Your task to perform on an android device: Search for Italian restaurants on Maps Image 0: 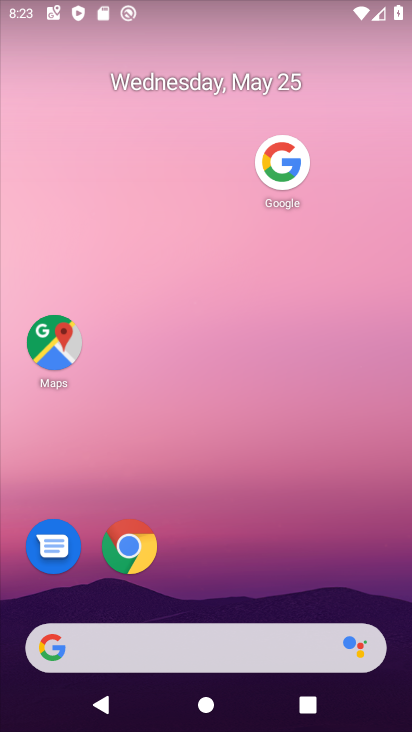
Step 0: click (63, 349)
Your task to perform on an android device: Search for Italian restaurants on Maps Image 1: 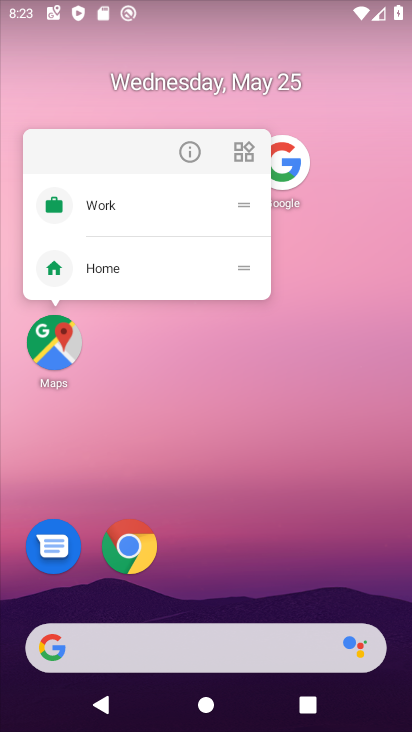
Step 1: click (54, 355)
Your task to perform on an android device: Search for Italian restaurants on Maps Image 2: 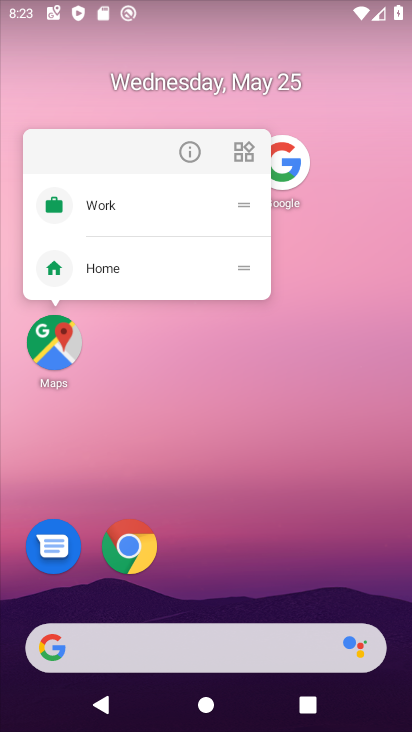
Step 2: click (62, 337)
Your task to perform on an android device: Search for Italian restaurants on Maps Image 3: 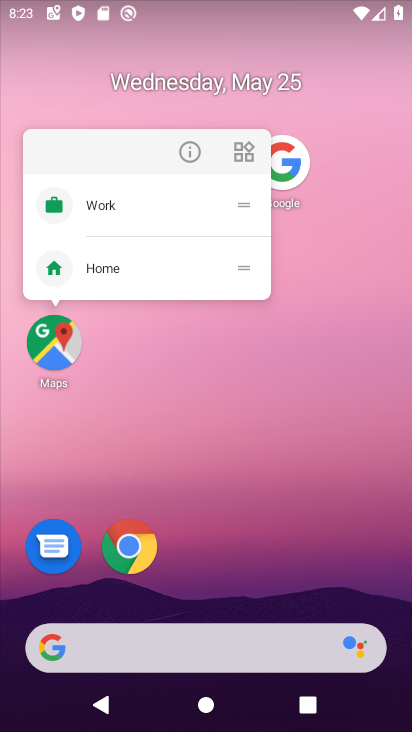
Step 3: click (48, 352)
Your task to perform on an android device: Search for Italian restaurants on Maps Image 4: 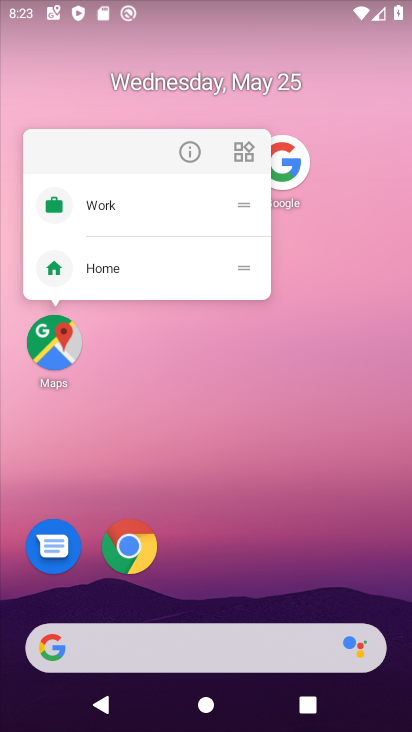
Step 4: click (57, 350)
Your task to perform on an android device: Search for Italian restaurants on Maps Image 5: 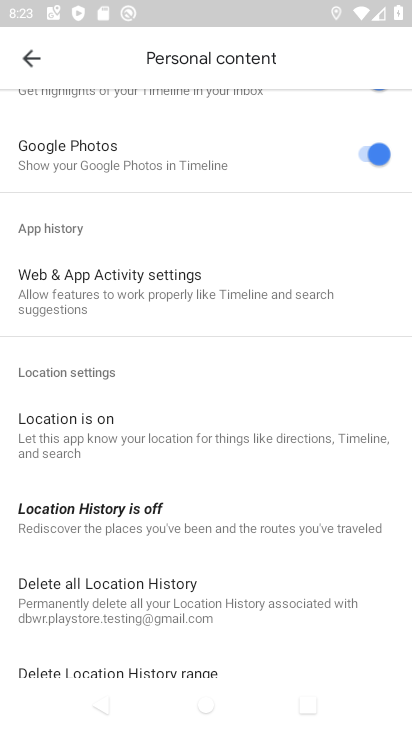
Step 5: click (36, 58)
Your task to perform on an android device: Search for Italian restaurants on Maps Image 6: 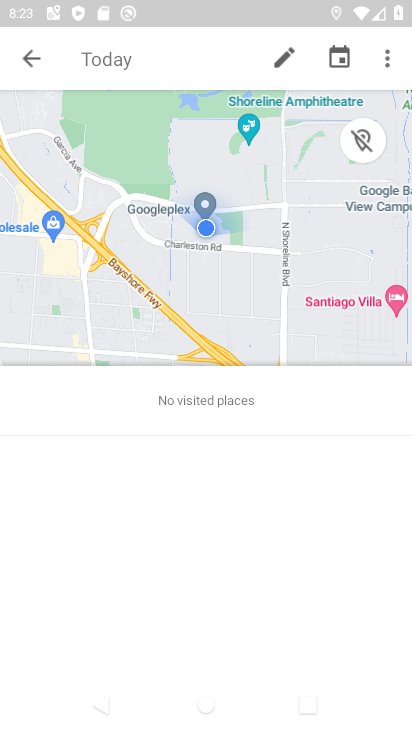
Step 6: click (34, 58)
Your task to perform on an android device: Search for Italian restaurants on Maps Image 7: 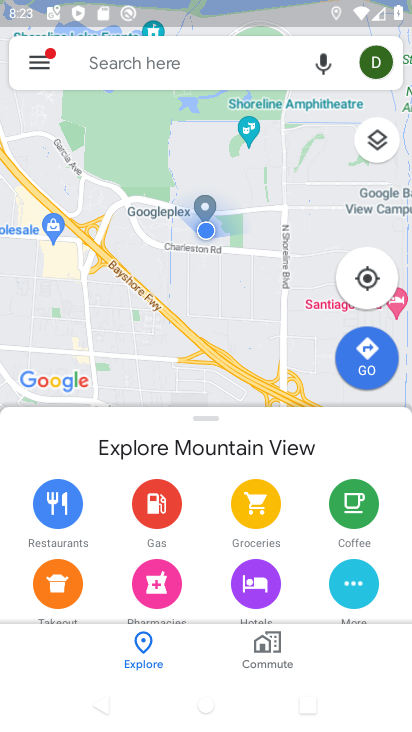
Step 7: click (157, 63)
Your task to perform on an android device: Search for Italian restaurants on Maps Image 8: 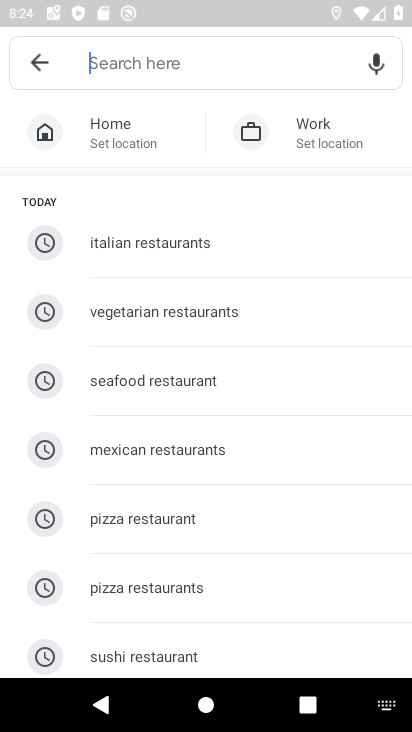
Step 8: click (159, 240)
Your task to perform on an android device: Search for Italian restaurants on Maps Image 9: 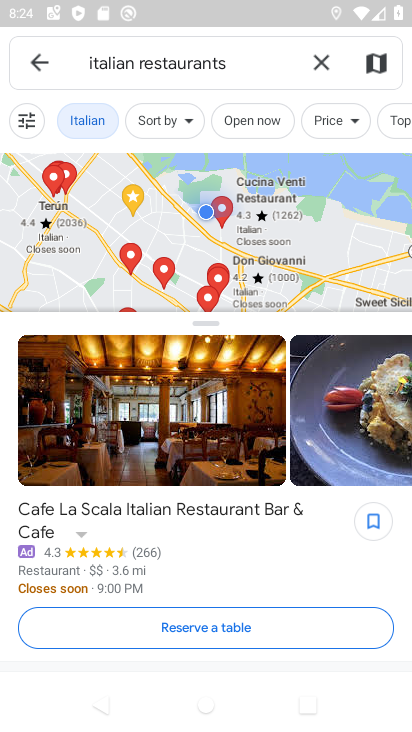
Step 9: task complete